Your task to perform on an android device: Open calendar and show me the second week of next month Image 0: 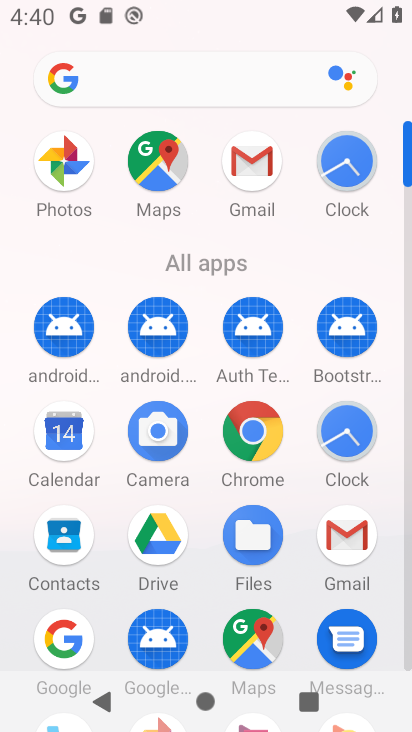
Step 0: click (71, 449)
Your task to perform on an android device: Open calendar and show me the second week of next month Image 1: 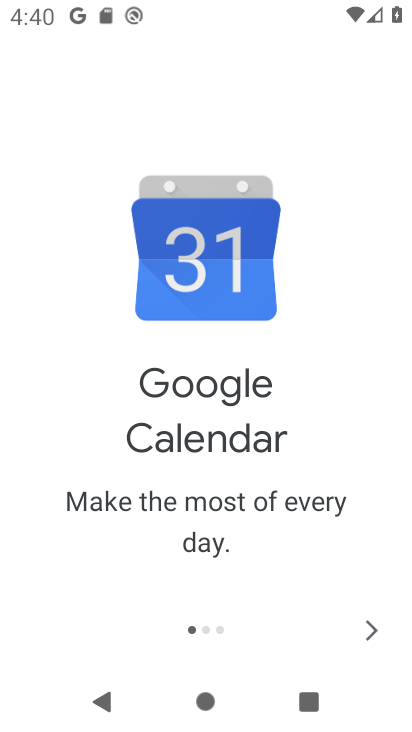
Step 1: click (370, 628)
Your task to perform on an android device: Open calendar and show me the second week of next month Image 2: 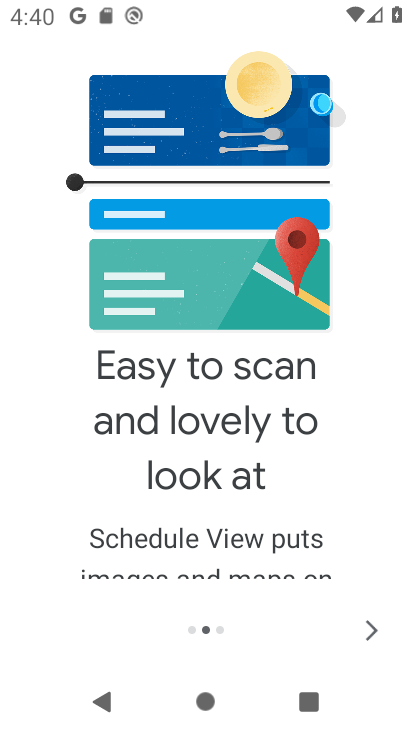
Step 2: click (369, 627)
Your task to perform on an android device: Open calendar and show me the second week of next month Image 3: 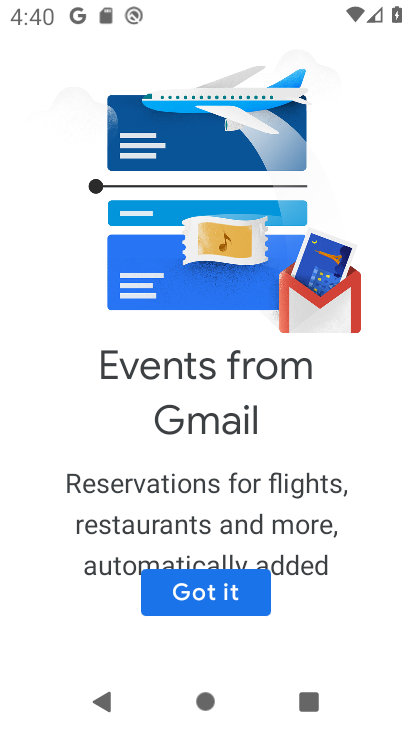
Step 3: click (251, 604)
Your task to perform on an android device: Open calendar and show me the second week of next month Image 4: 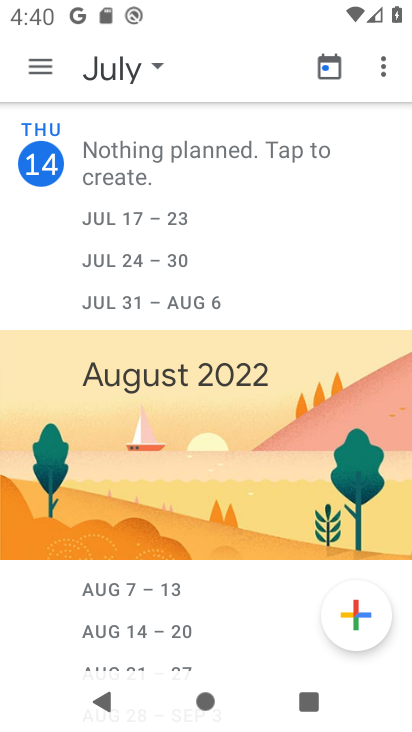
Step 4: click (40, 73)
Your task to perform on an android device: Open calendar and show me the second week of next month Image 5: 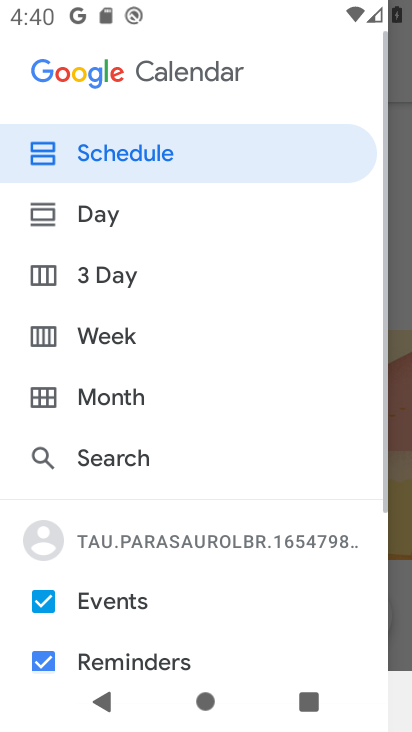
Step 5: click (123, 395)
Your task to perform on an android device: Open calendar and show me the second week of next month Image 6: 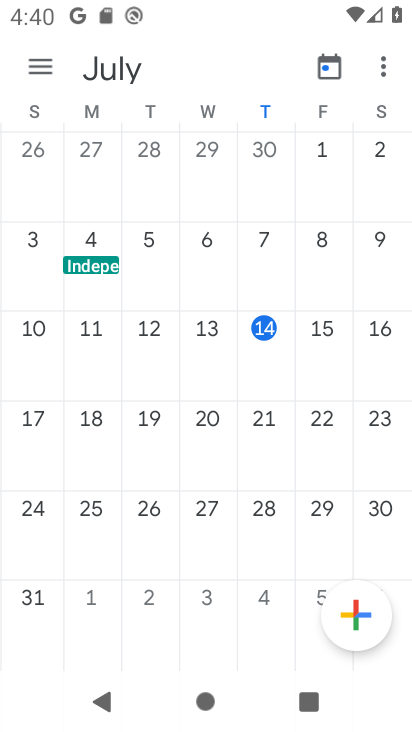
Step 6: task complete